Your task to perform on an android device: Open accessibility settings Image 0: 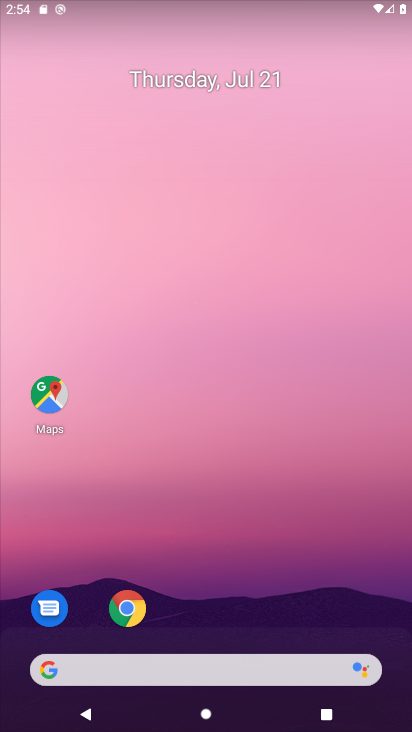
Step 0: drag from (341, 625) to (392, 24)
Your task to perform on an android device: Open accessibility settings Image 1: 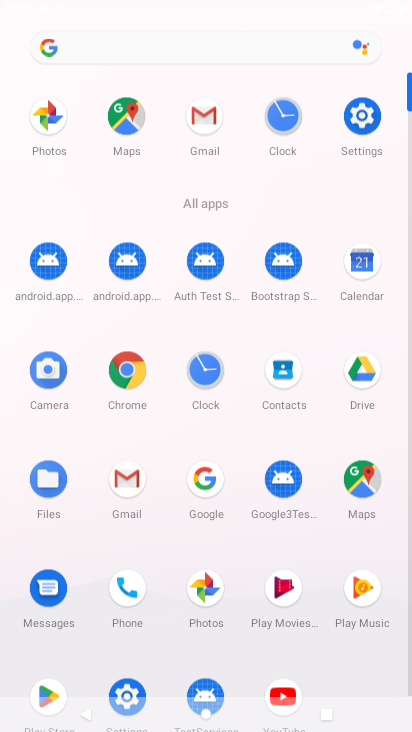
Step 1: click (356, 129)
Your task to perform on an android device: Open accessibility settings Image 2: 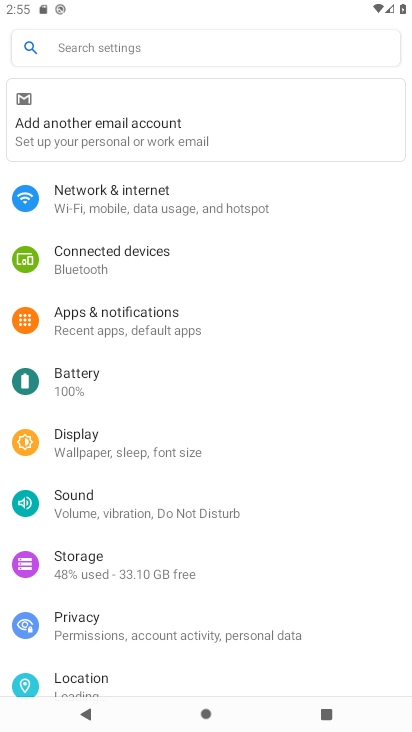
Step 2: drag from (261, 655) to (224, 210)
Your task to perform on an android device: Open accessibility settings Image 3: 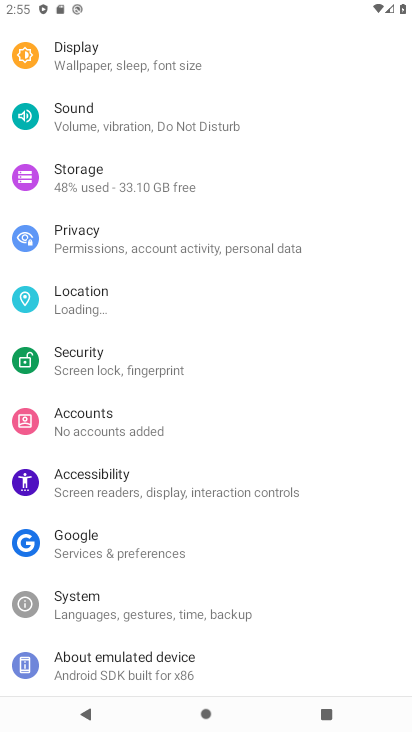
Step 3: click (172, 475)
Your task to perform on an android device: Open accessibility settings Image 4: 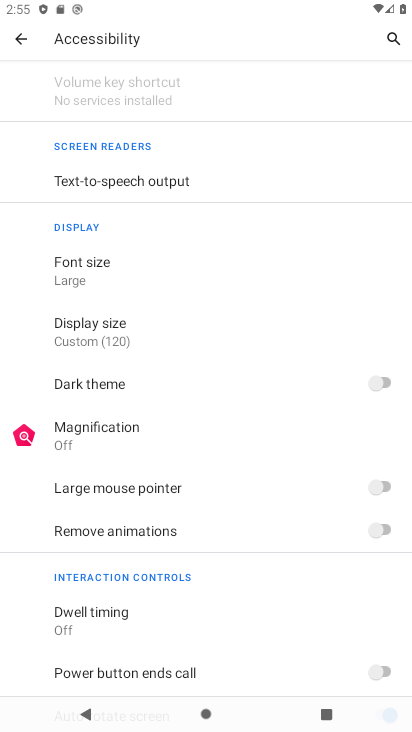
Step 4: task complete